Your task to perform on an android device: open app "AliExpress" (install if not already installed) and enter user name: "orangutan@inbox.com" and password: "Lyons" Image 0: 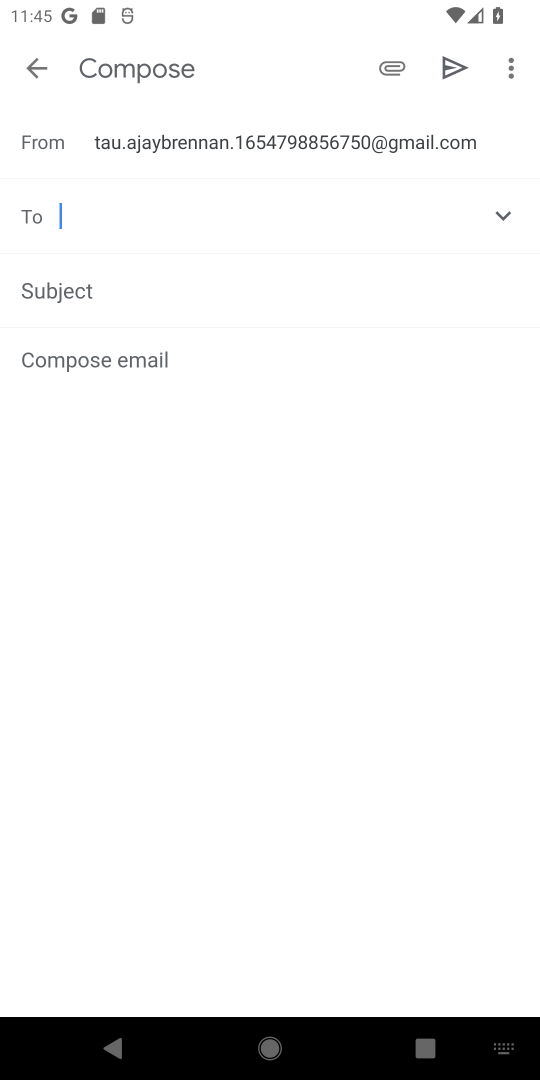
Step 0: press home button
Your task to perform on an android device: open app "AliExpress" (install if not already installed) and enter user name: "orangutan@inbox.com" and password: "Lyons" Image 1: 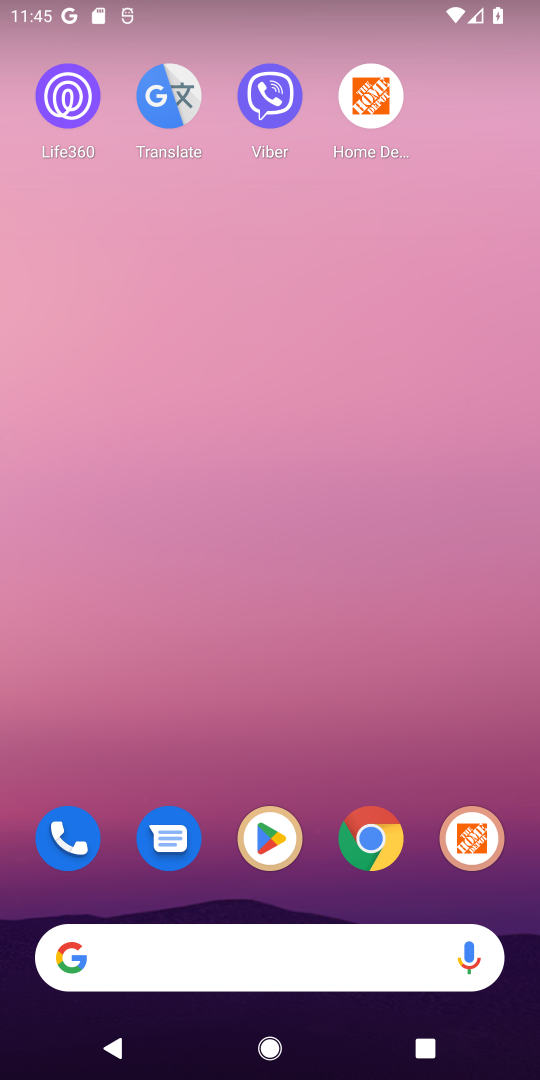
Step 1: click (278, 818)
Your task to perform on an android device: open app "AliExpress" (install if not already installed) and enter user name: "orangutan@inbox.com" and password: "Lyons" Image 2: 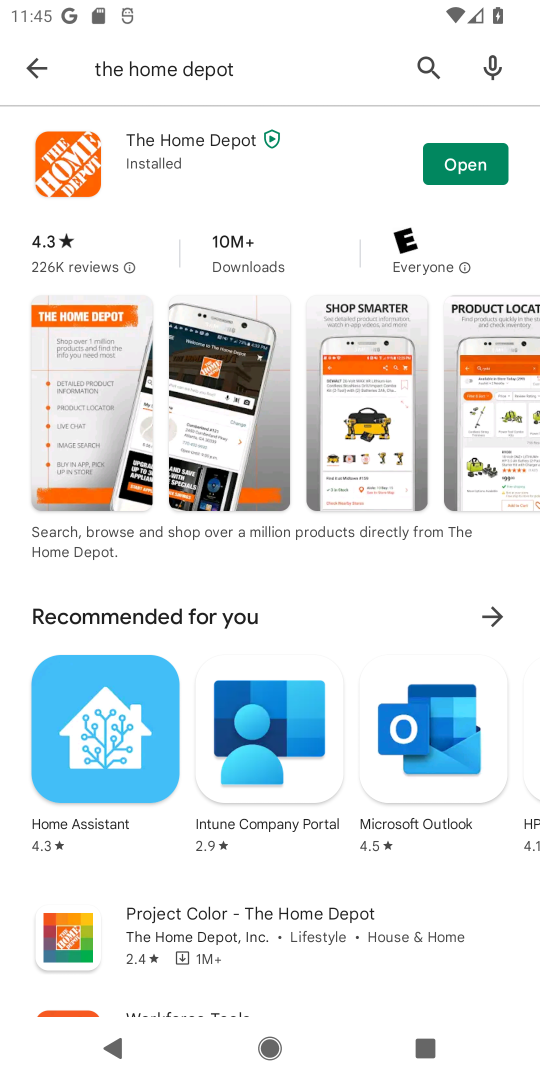
Step 2: click (435, 66)
Your task to perform on an android device: open app "AliExpress" (install if not already installed) and enter user name: "orangutan@inbox.com" and password: "Lyons" Image 3: 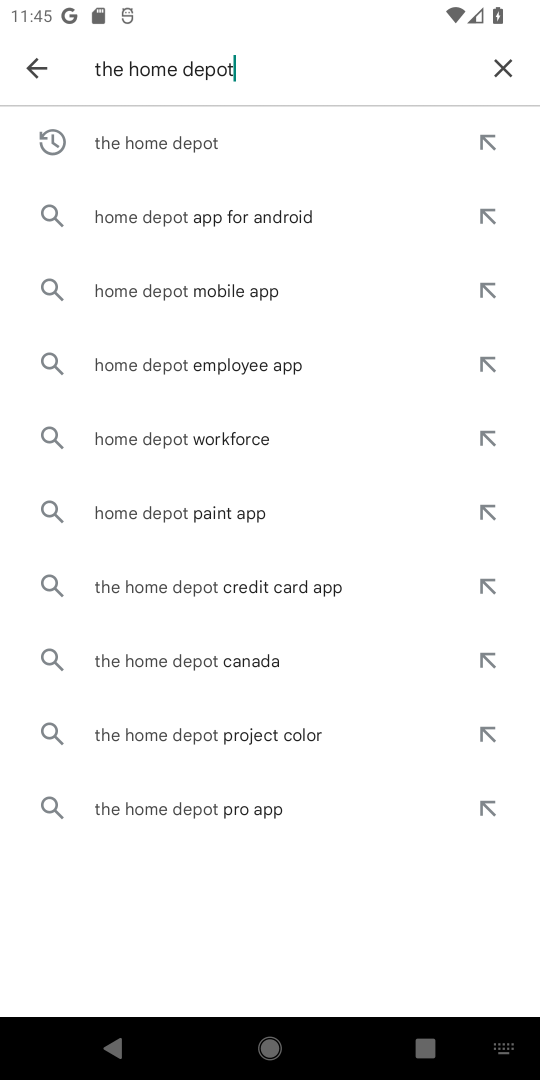
Step 3: click (493, 64)
Your task to perform on an android device: open app "AliExpress" (install if not already installed) and enter user name: "orangutan@inbox.com" and password: "Lyons" Image 4: 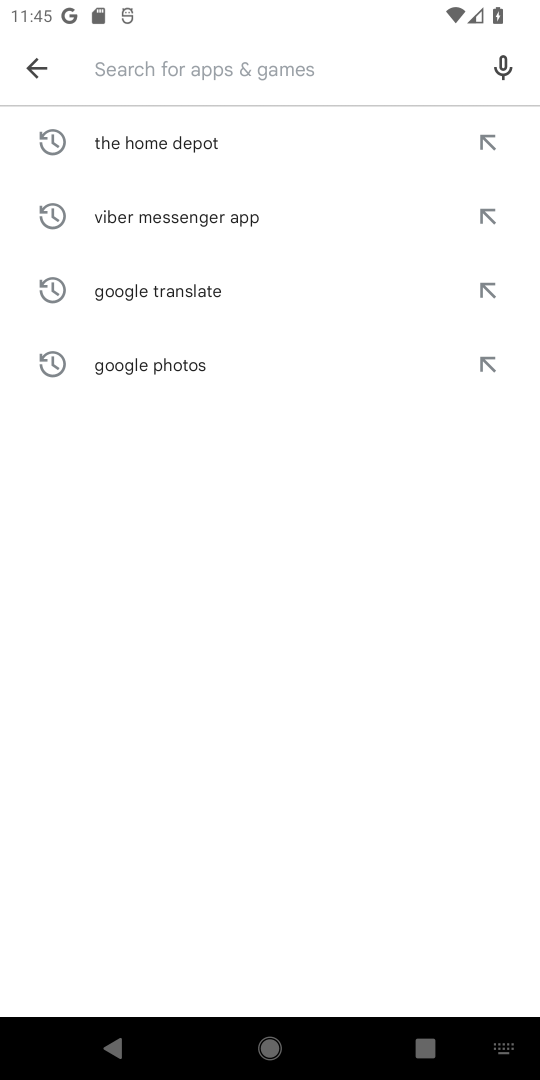
Step 4: type "AliExpress"
Your task to perform on an android device: open app "AliExpress" (install if not already installed) and enter user name: "orangutan@inbox.com" and password: "Lyons" Image 5: 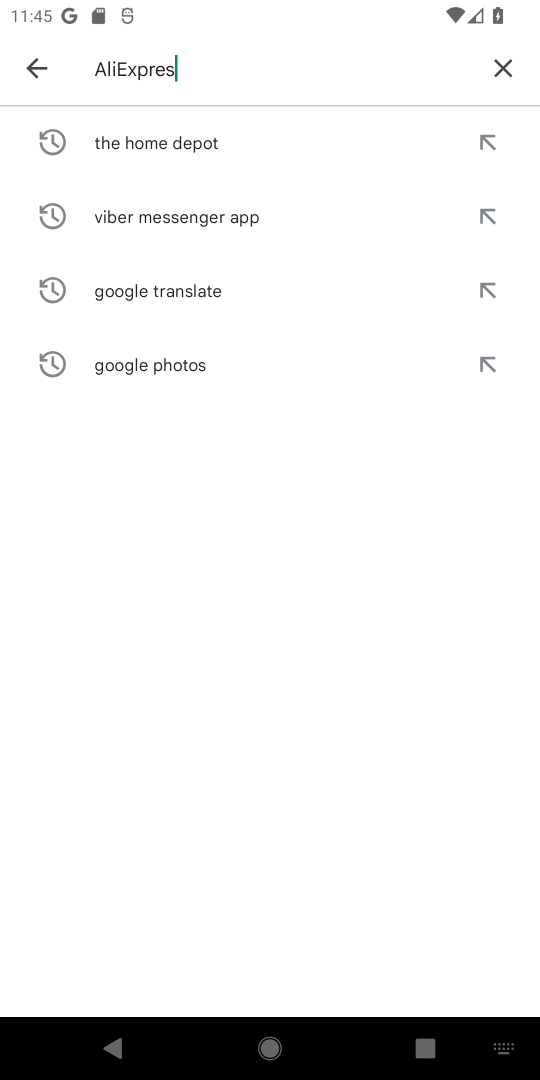
Step 5: type ""
Your task to perform on an android device: open app "AliExpress" (install if not already installed) and enter user name: "orangutan@inbox.com" and password: "Lyons" Image 6: 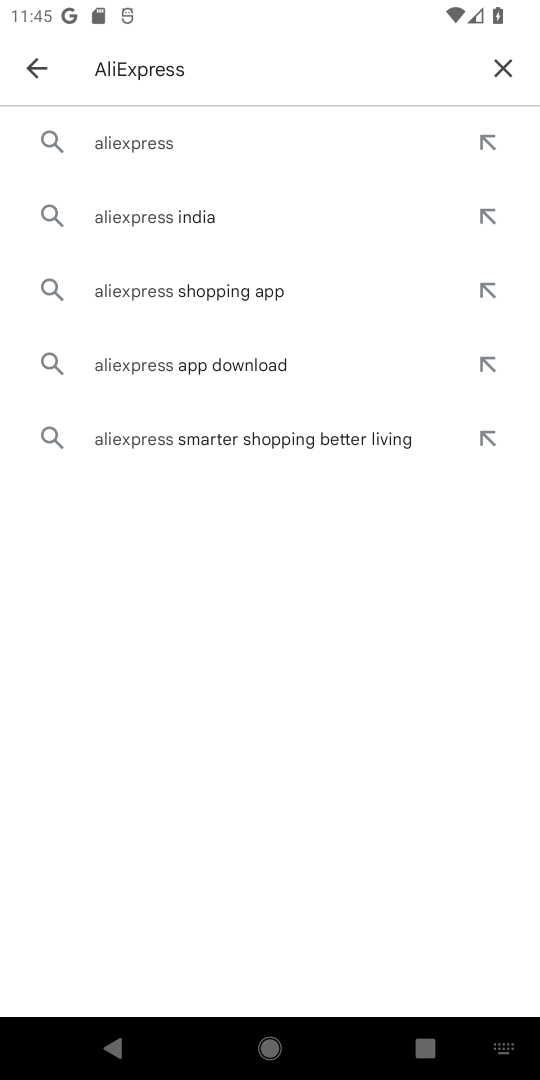
Step 6: click (145, 150)
Your task to perform on an android device: open app "AliExpress" (install if not already installed) and enter user name: "orangutan@inbox.com" and password: "Lyons" Image 7: 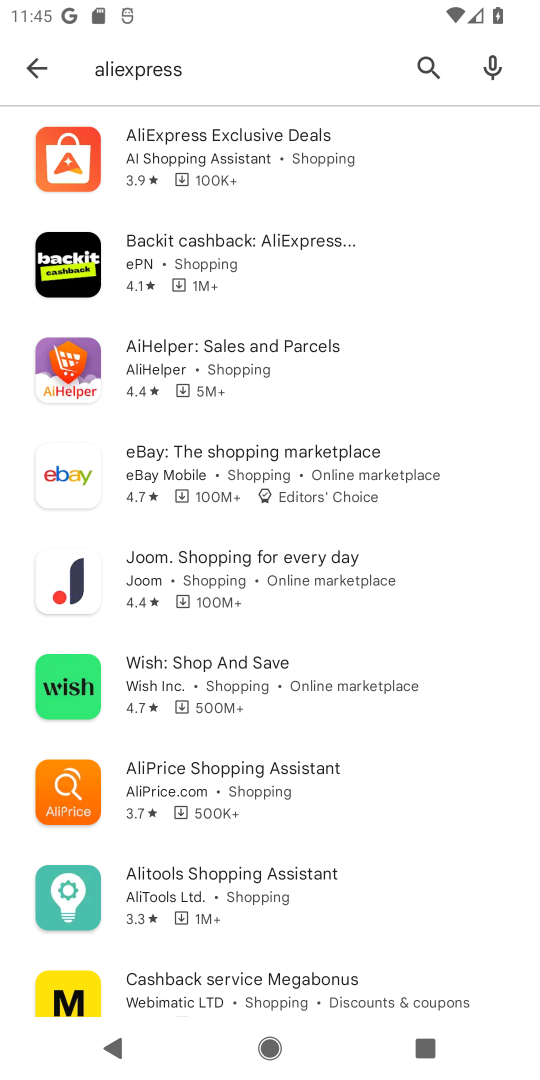
Step 7: click (286, 171)
Your task to perform on an android device: open app "AliExpress" (install if not already installed) and enter user name: "orangutan@inbox.com" and password: "Lyons" Image 8: 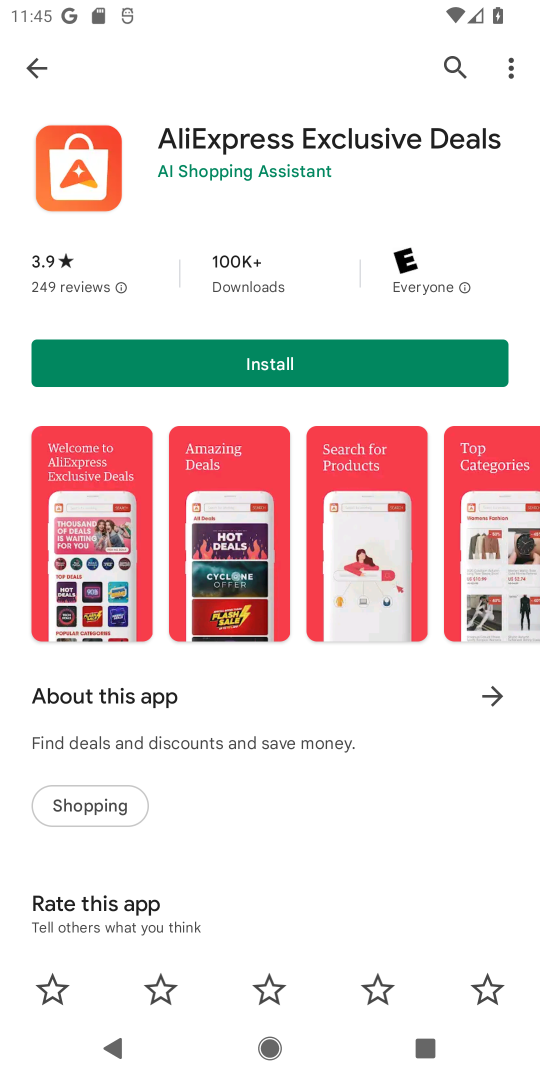
Step 8: click (308, 363)
Your task to perform on an android device: open app "AliExpress" (install if not already installed) and enter user name: "orangutan@inbox.com" and password: "Lyons" Image 9: 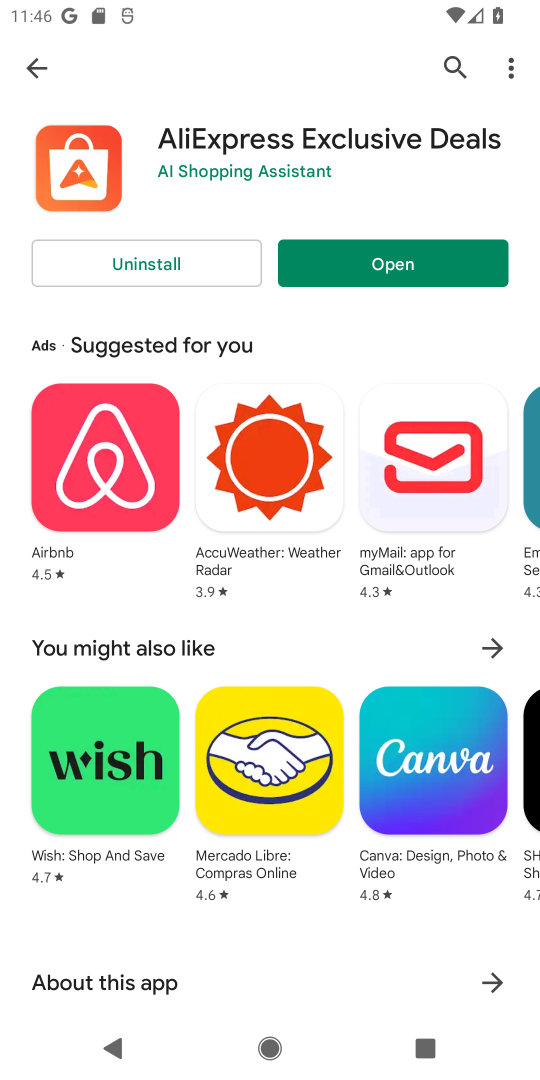
Step 9: click (411, 275)
Your task to perform on an android device: open app "AliExpress" (install if not already installed) and enter user name: "orangutan@inbox.com" and password: "Lyons" Image 10: 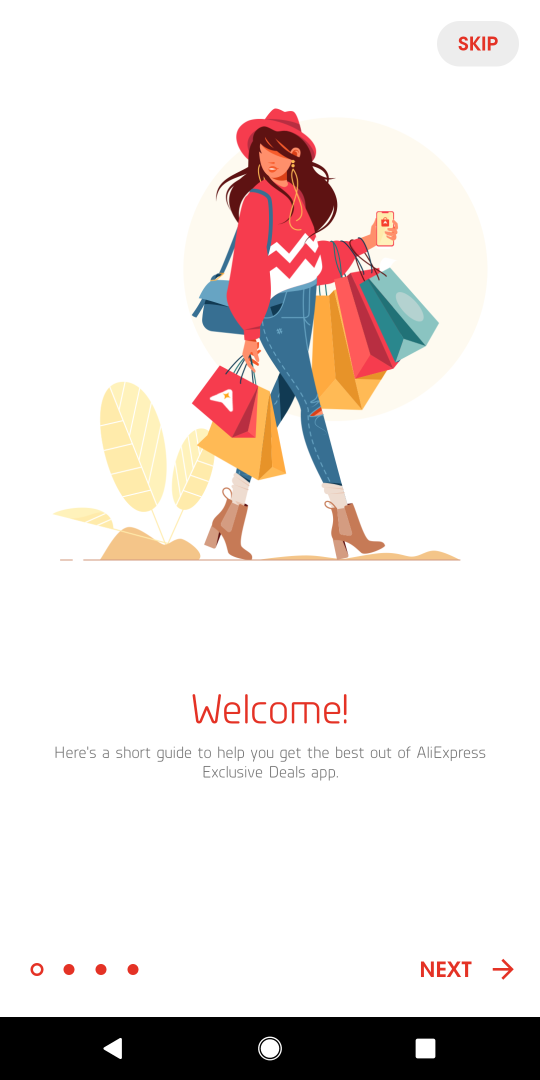
Step 10: task complete